Your task to perform on an android device: Go to ESPN.com Image 0: 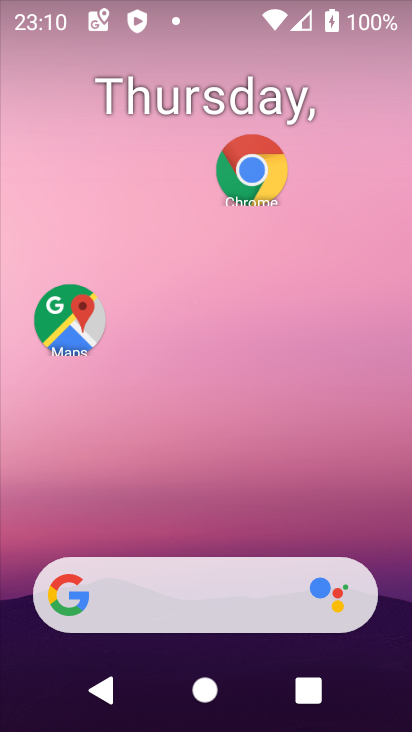
Step 0: click (239, 158)
Your task to perform on an android device: Go to ESPN.com Image 1: 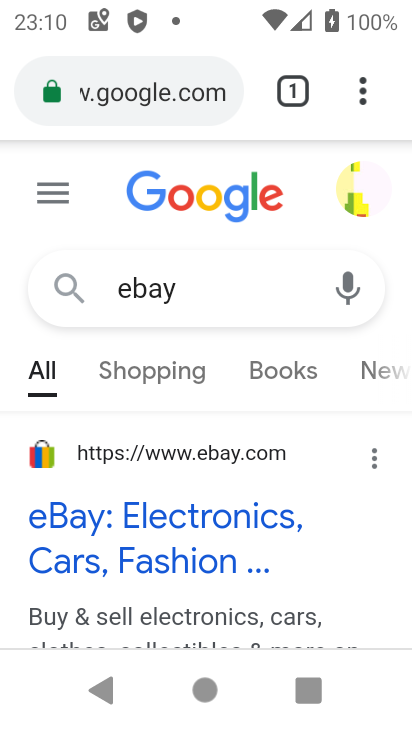
Step 1: click (291, 84)
Your task to perform on an android device: Go to ESPN.com Image 2: 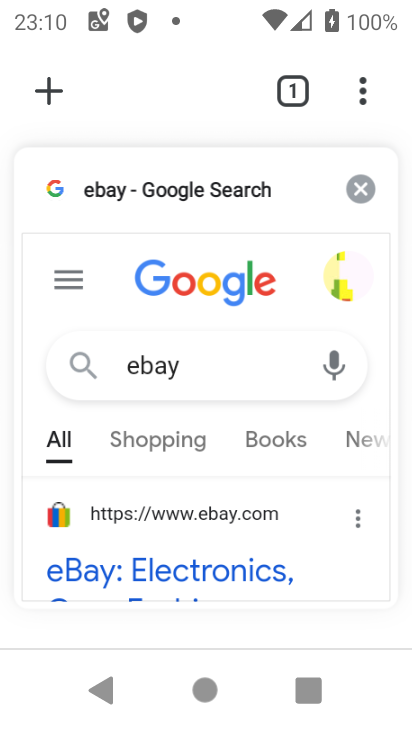
Step 2: click (355, 188)
Your task to perform on an android device: Go to ESPN.com Image 3: 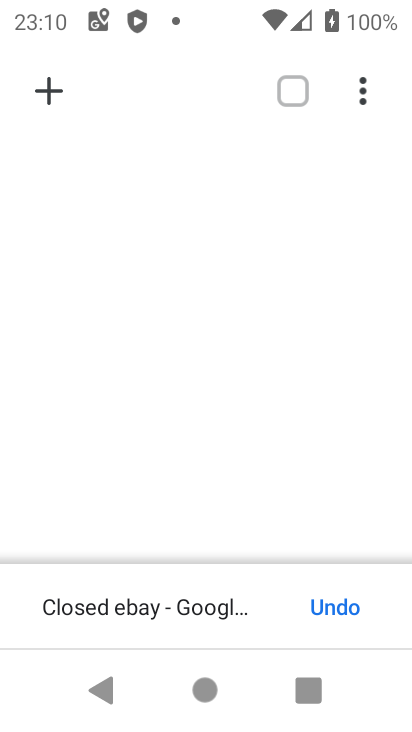
Step 3: click (55, 95)
Your task to perform on an android device: Go to ESPN.com Image 4: 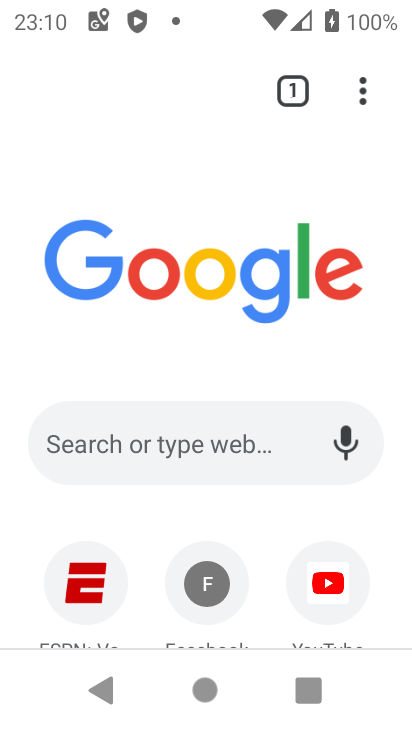
Step 4: click (92, 578)
Your task to perform on an android device: Go to ESPN.com Image 5: 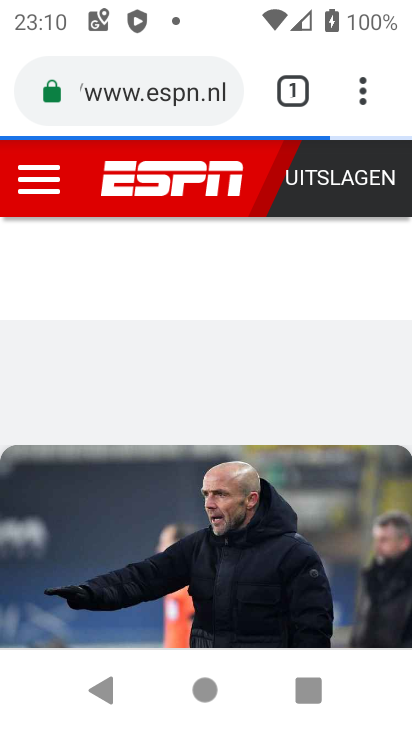
Step 5: task complete